Your task to perform on an android device: Open the stopwatch Image 0: 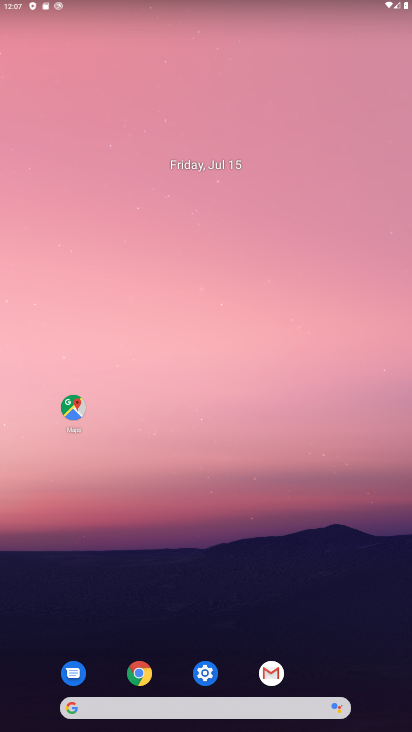
Step 0: press home button
Your task to perform on an android device: Open the stopwatch Image 1: 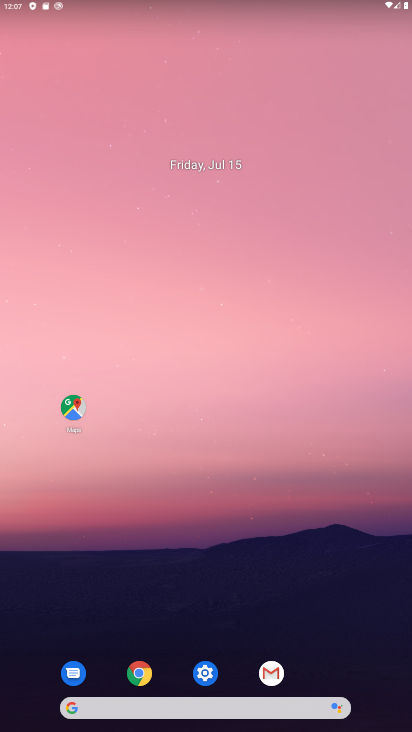
Step 1: click (203, 679)
Your task to perform on an android device: Open the stopwatch Image 2: 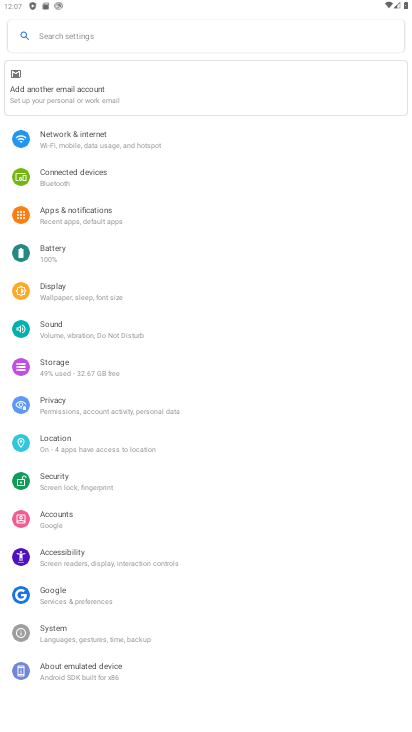
Step 2: press home button
Your task to perform on an android device: Open the stopwatch Image 3: 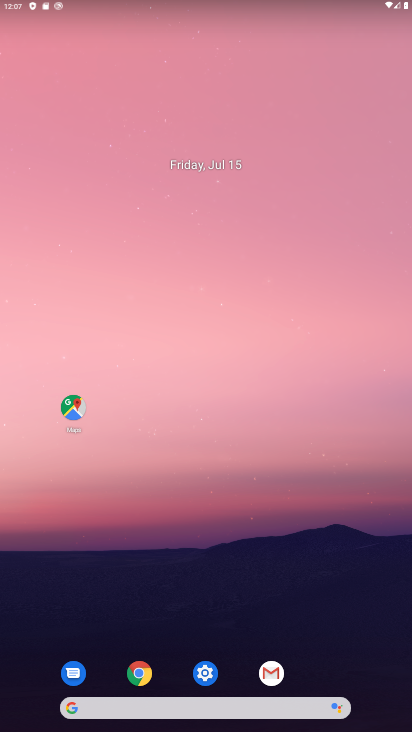
Step 3: drag from (214, 688) to (230, 235)
Your task to perform on an android device: Open the stopwatch Image 4: 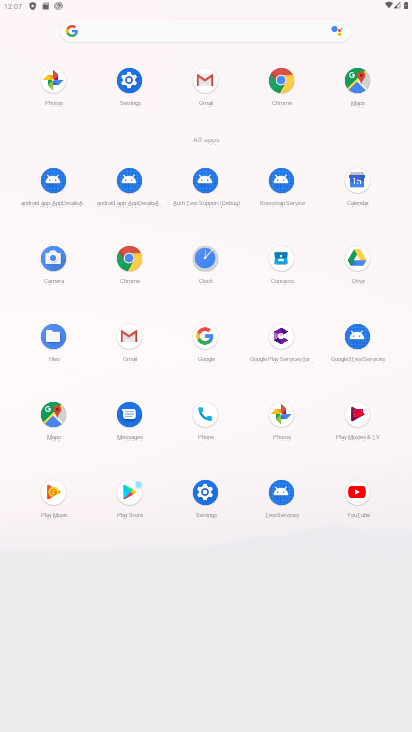
Step 4: click (214, 251)
Your task to perform on an android device: Open the stopwatch Image 5: 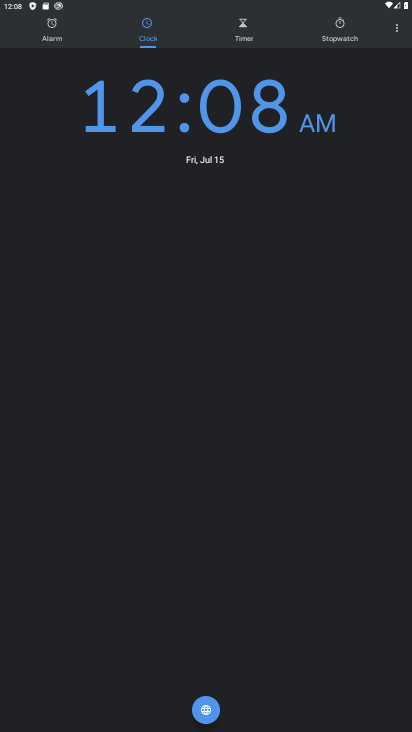
Step 5: click (319, 32)
Your task to perform on an android device: Open the stopwatch Image 6: 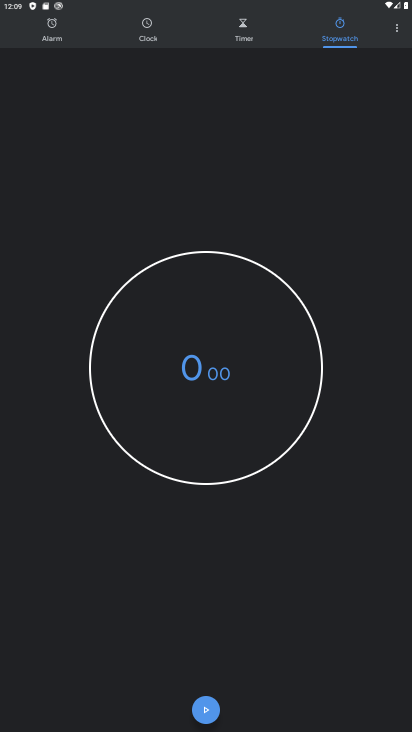
Step 6: task complete